Your task to perform on an android device: Open Google Maps and go to "Timeline" Image 0: 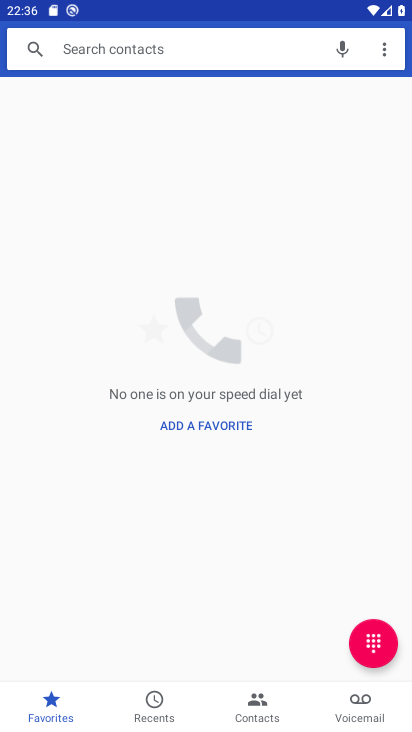
Step 0: click (394, 188)
Your task to perform on an android device: Open Google Maps and go to "Timeline" Image 1: 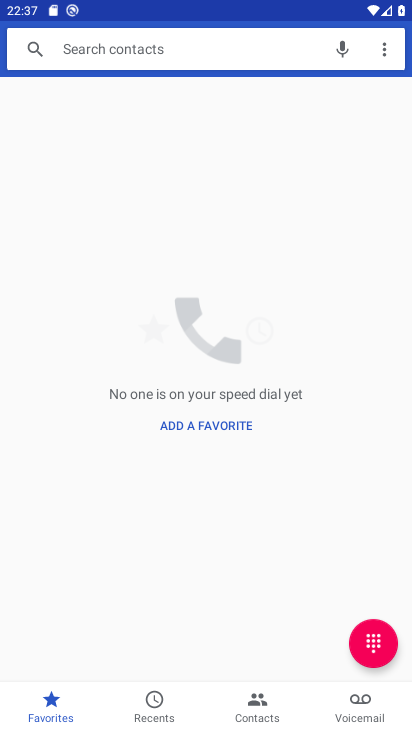
Step 1: drag from (212, 480) to (329, 184)
Your task to perform on an android device: Open Google Maps and go to "Timeline" Image 2: 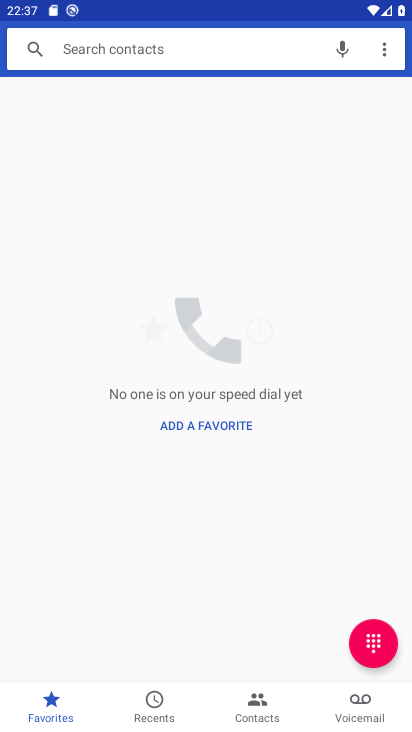
Step 2: drag from (233, 470) to (369, 123)
Your task to perform on an android device: Open Google Maps and go to "Timeline" Image 3: 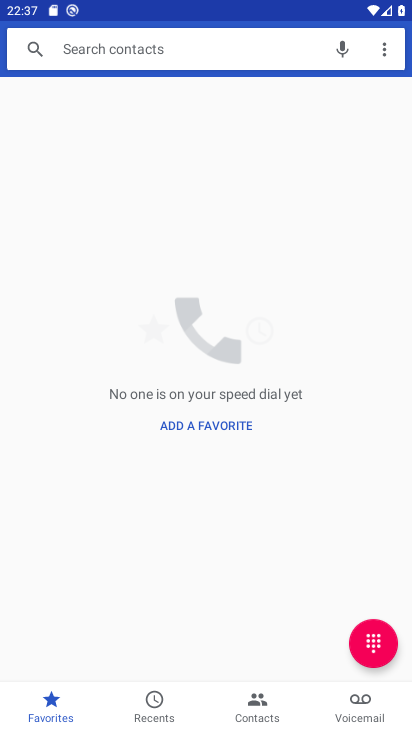
Step 3: drag from (173, 587) to (273, 345)
Your task to perform on an android device: Open Google Maps and go to "Timeline" Image 4: 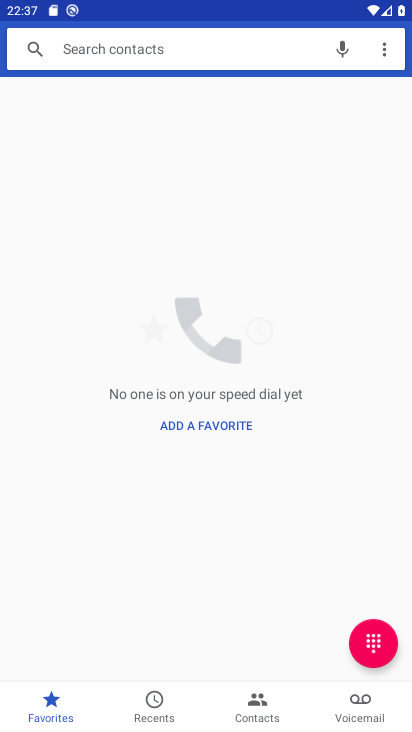
Step 4: press home button
Your task to perform on an android device: Open Google Maps and go to "Timeline" Image 5: 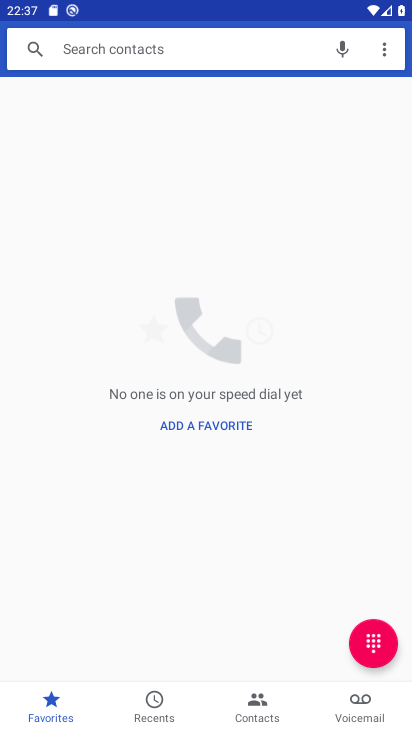
Step 5: press home button
Your task to perform on an android device: Open Google Maps and go to "Timeline" Image 6: 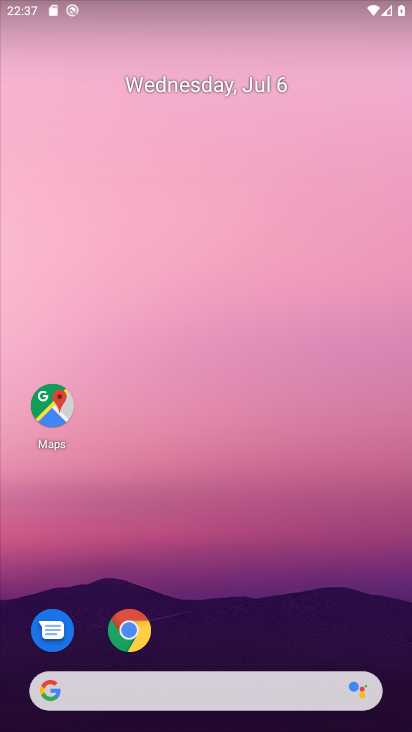
Step 6: drag from (185, 630) to (271, 202)
Your task to perform on an android device: Open Google Maps and go to "Timeline" Image 7: 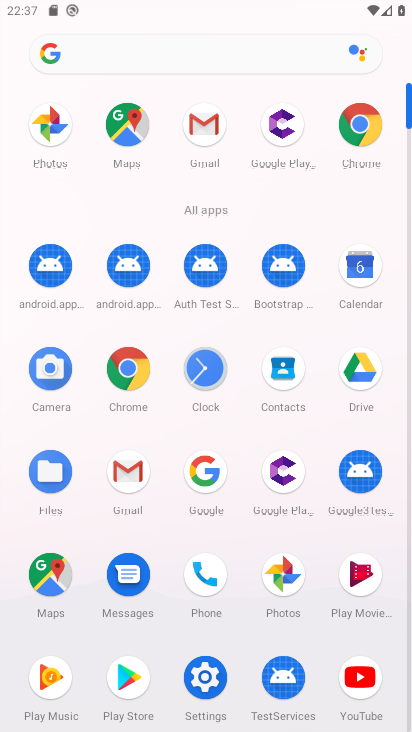
Step 7: click (35, 576)
Your task to perform on an android device: Open Google Maps and go to "Timeline" Image 8: 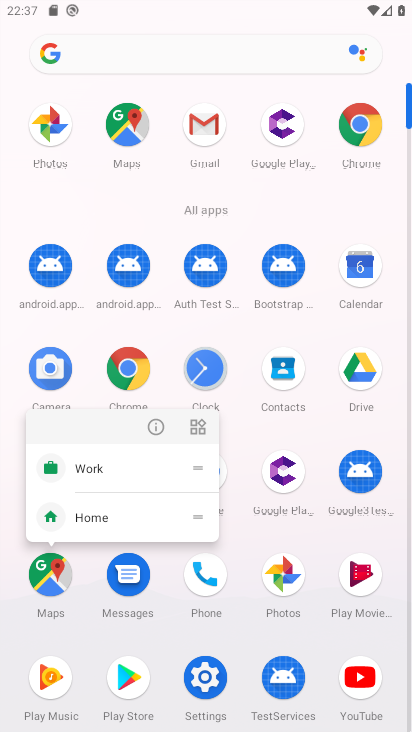
Step 8: click (159, 420)
Your task to perform on an android device: Open Google Maps and go to "Timeline" Image 9: 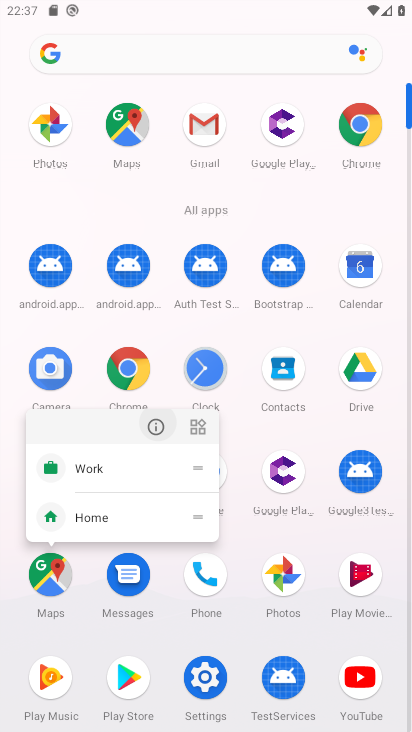
Step 9: click (159, 420)
Your task to perform on an android device: Open Google Maps and go to "Timeline" Image 10: 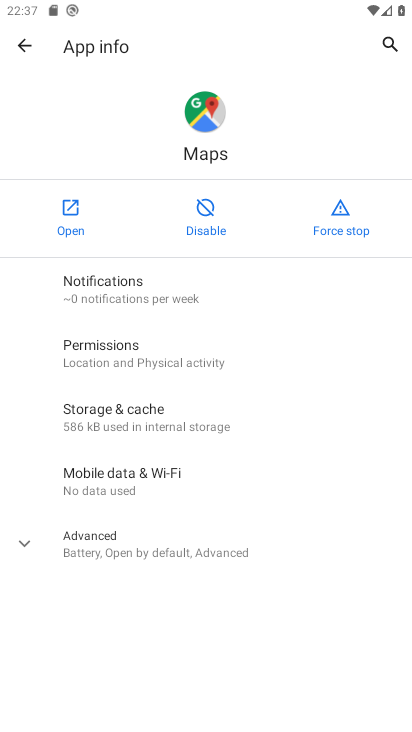
Step 10: click (64, 196)
Your task to perform on an android device: Open Google Maps and go to "Timeline" Image 11: 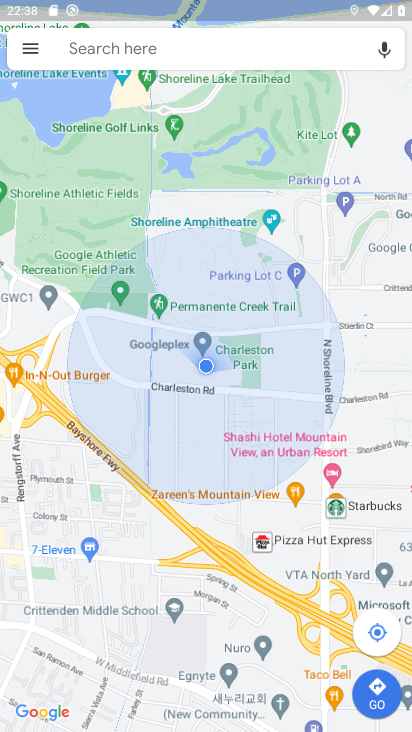
Step 11: click (35, 56)
Your task to perform on an android device: Open Google Maps and go to "Timeline" Image 12: 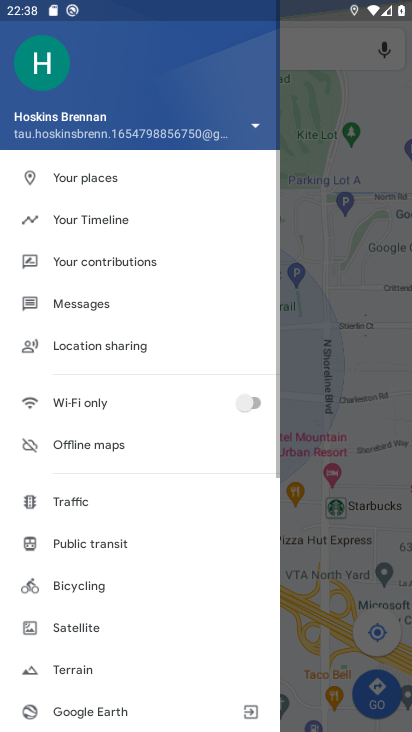
Step 12: drag from (132, 576) to (98, 214)
Your task to perform on an android device: Open Google Maps and go to "Timeline" Image 13: 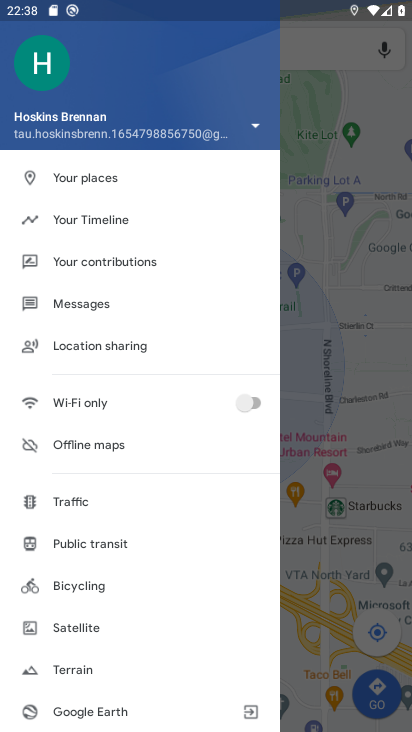
Step 13: click (77, 222)
Your task to perform on an android device: Open Google Maps and go to "Timeline" Image 14: 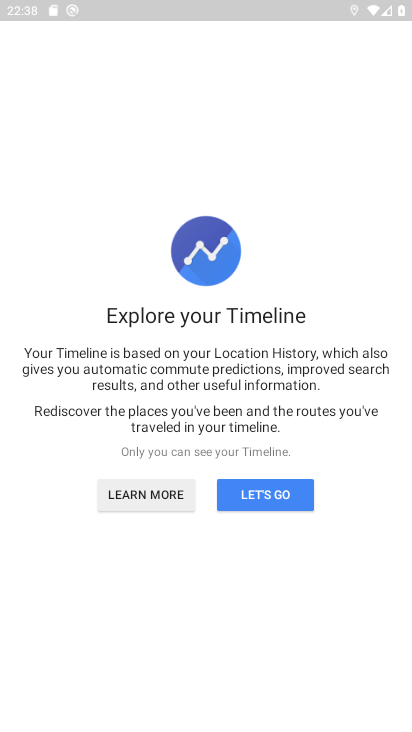
Step 14: click (282, 496)
Your task to perform on an android device: Open Google Maps and go to "Timeline" Image 15: 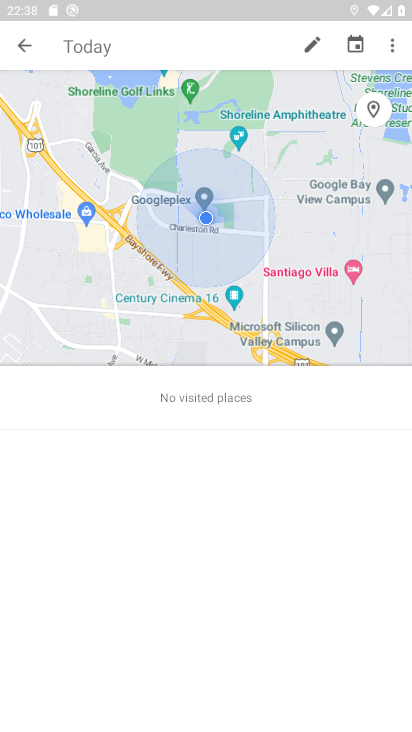
Step 15: task complete